Your task to perform on an android device: make emails show in primary in the gmail app Image 0: 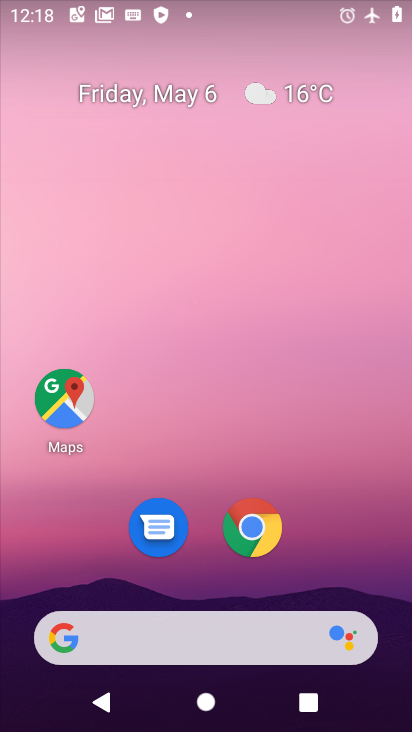
Step 0: drag from (312, 556) to (137, 109)
Your task to perform on an android device: make emails show in primary in the gmail app Image 1: 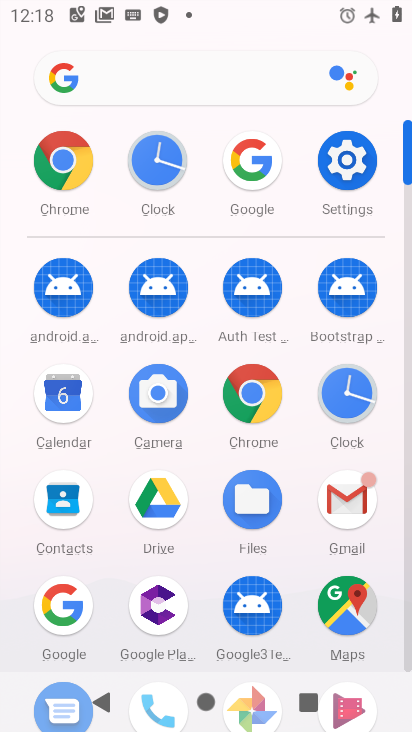
Step 1: click (354, 506)
Your task to perform on an android device: make emails show in primary in the gmail app Image 2: 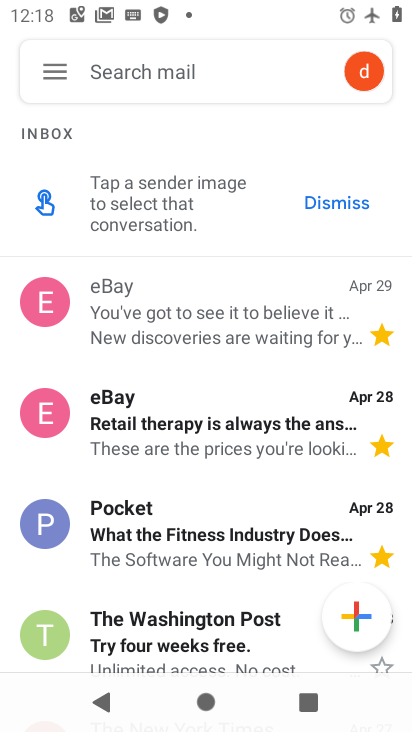
Step 2: click (59, 69)
Your task to perform on an android device: make emails show in primary in the gmail app Image 3: 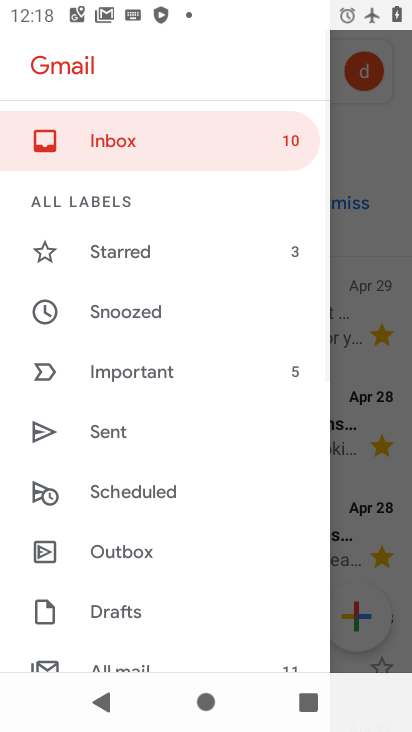
Step 3: drag from (130, 633) to (152, 134)
Your task to perform on an android device: make emails show in primary in the gmail app Image 4: 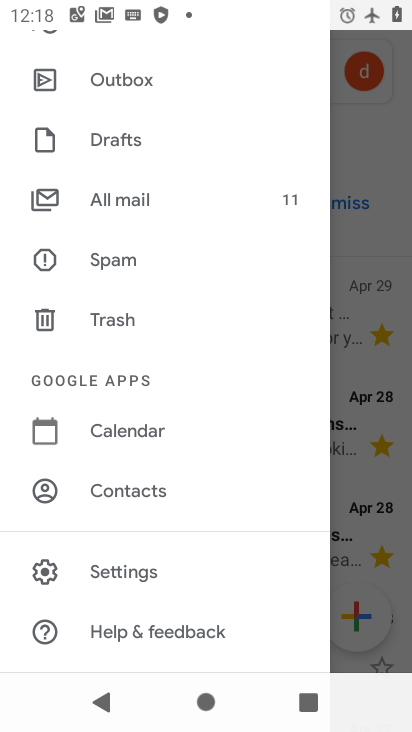
Step 4: click (118, 564)
Your task to perform on an android device: make emails show in primary in the gmail app Image 5: 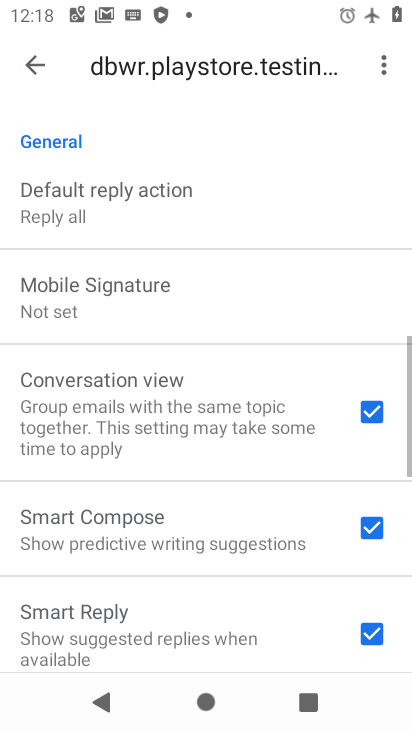
Step 5: drag from (118, 492) to (82, 648)
Your task to perform on an android device: make emails show in primary in the gmail app Image 6: 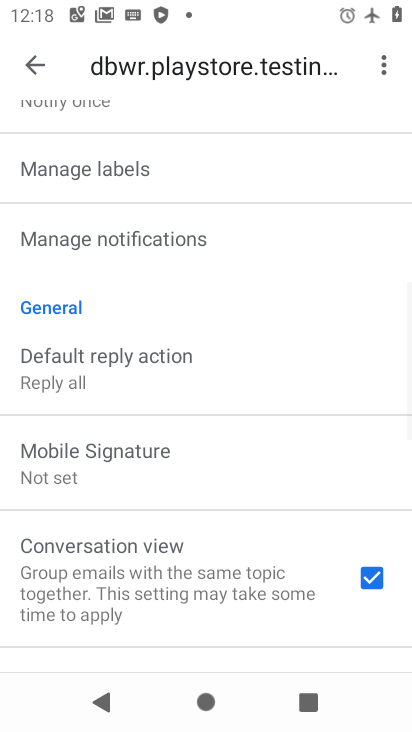
Step 6: drag from (184, 218) to (118, 597)
Your task to perform on an android device: make emails show in primary in the gmail app Image 7: 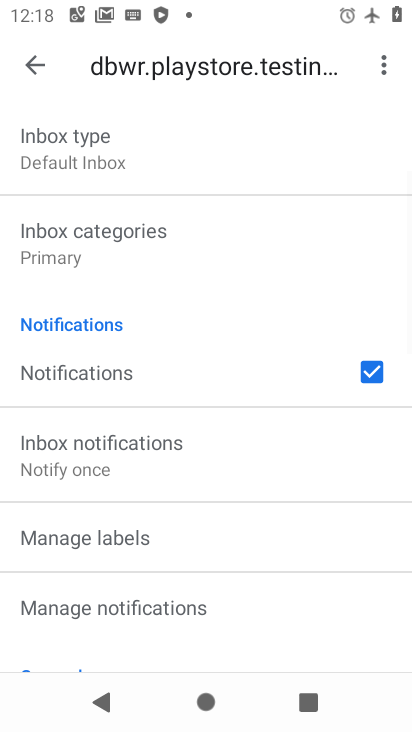
Step 7: drag from (152, 164) to (106, 441)
Your task to perform on an android device: make emails show in primary in the gmail app Image 8: 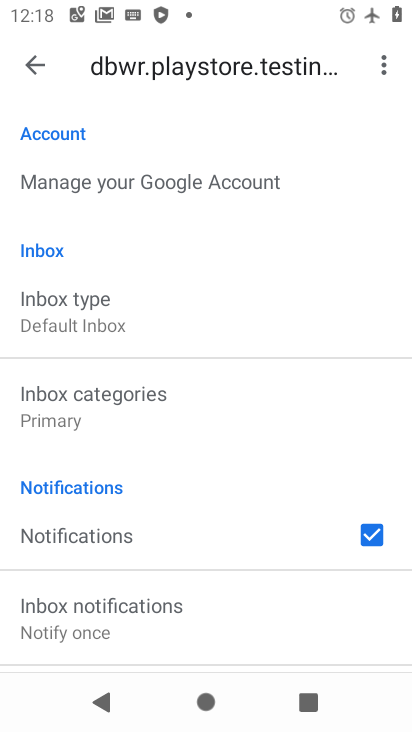
Step 8: click (84, 317)
Your task to perform on an android device: make emails show in primary in the gmail app Image 9: 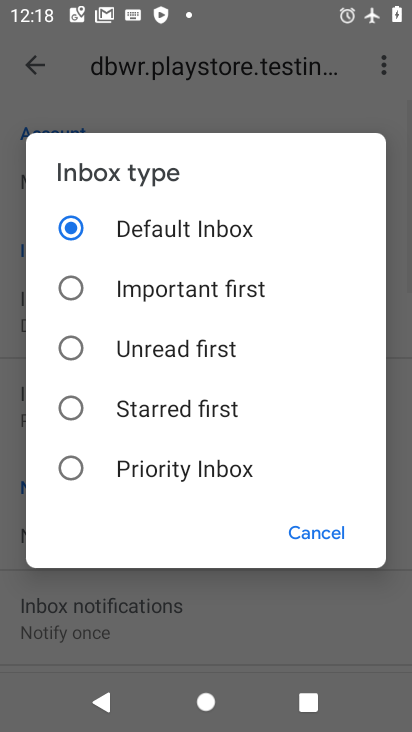
Step 9: click (69, 467)
Your task to perform on an android device: make emails show in primary in the gmail app Image 10: 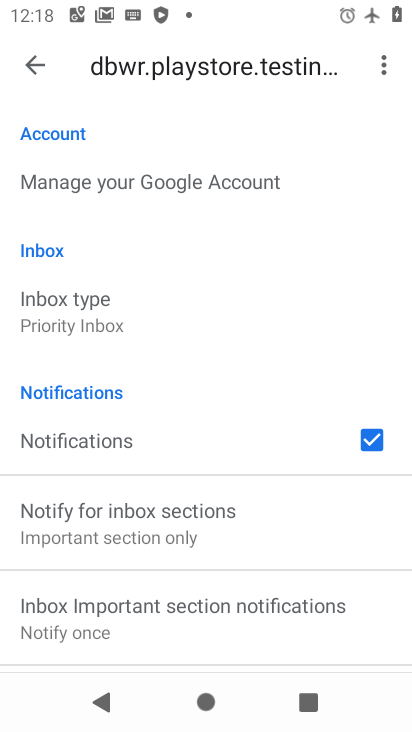
Step 10: drag from (123, 281) to (103, 480)
Your task to perform on an android device: make emails show in primary in the gmail app Image 11: 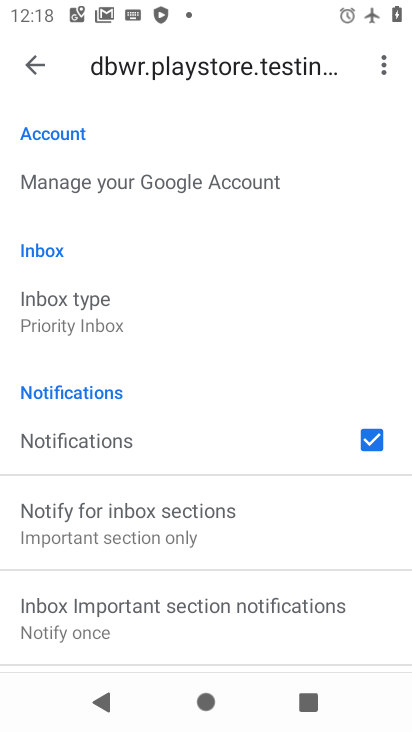
Step 11: press back button
Your task to perform on an android device: make emails show in primary in the gmail app Image 12: 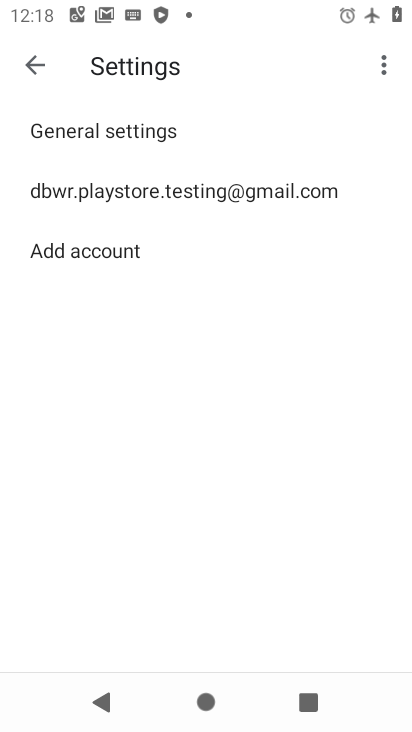
Step 12: press back button
Your task to perform on an android device: make emails show in primary in the gmail app Image 13: 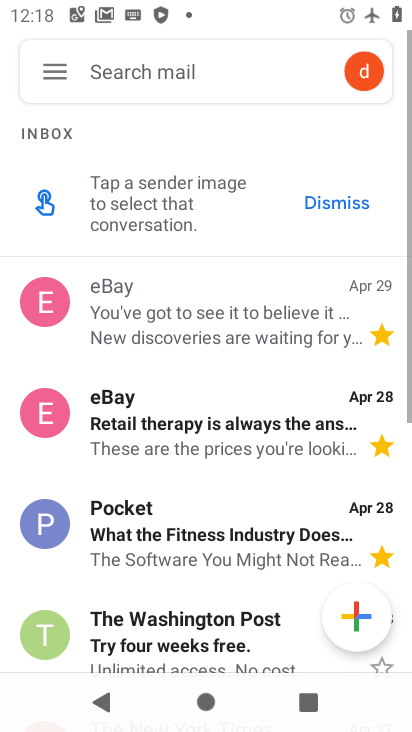
Step 13: click (58, 73)
Your task to perform on an android device: make emails show in primary in the gmail app Image 14: 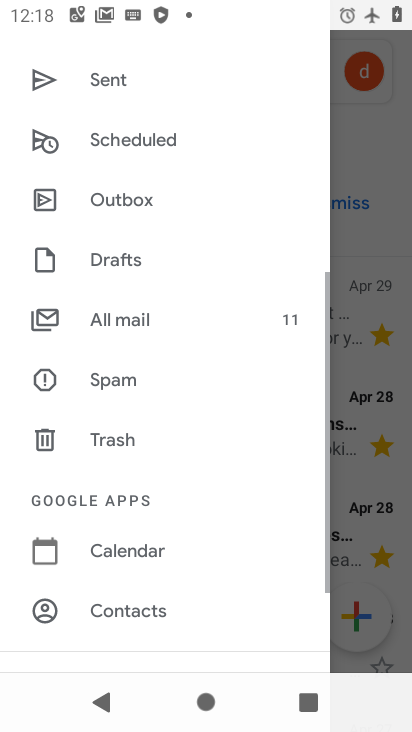
Step 14: drag from (158, 177) to (137, 621)
Your task to perform on an android device: make emails show in primary in the gmail app Image 15: 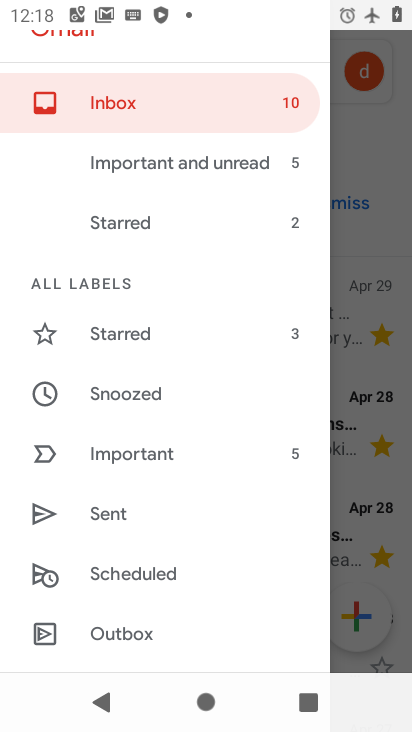
Step 15: drag from (159, 142) to (154, 383)
Your task to perform on an android device: make emails show in primary in the gmail app Image 16: 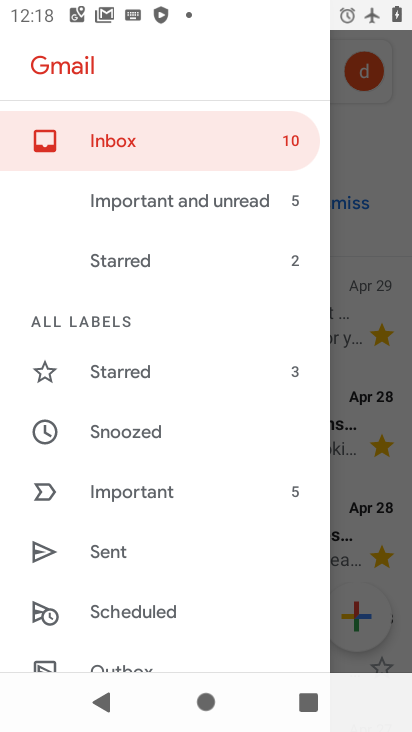
Step 16: drag from (159, 562) to (169, 139)
Your task to perform on an android device: make emails show in primary in the gmail app Image 17: 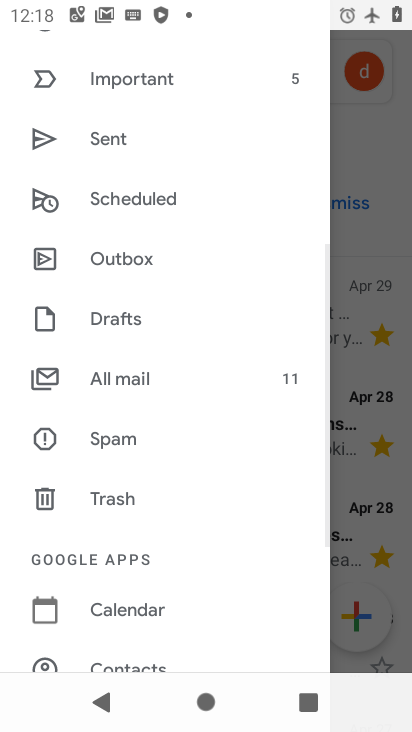
Step 17: drag from (144, 586) to (145, 219)
Your task to perform on an android device: make emails show in primary in the gmail app Image 18: 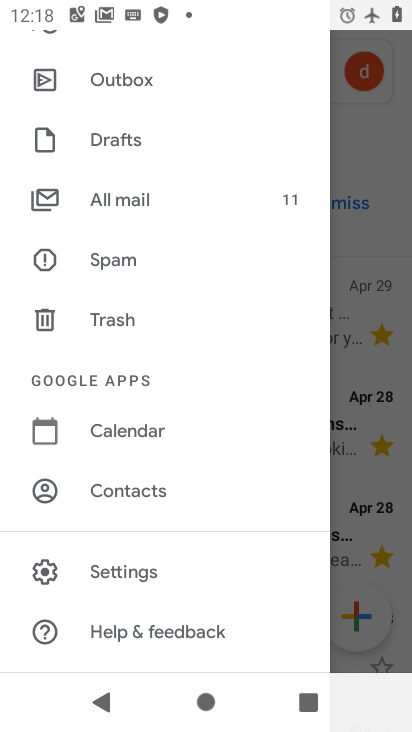
Step 18: click (119, 572)
Your task to perform on an android device: make emails show in primary in the gmail app Image 19: 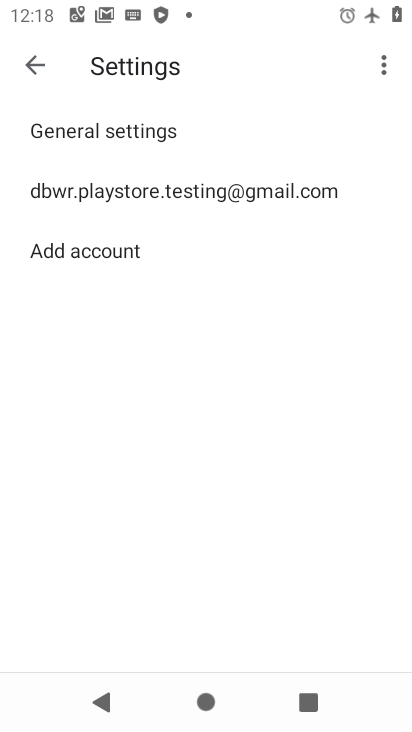
Step 19: click (105, 194)
Your task to perform on an android device: make emails show in primary in the gmail app Image 20: 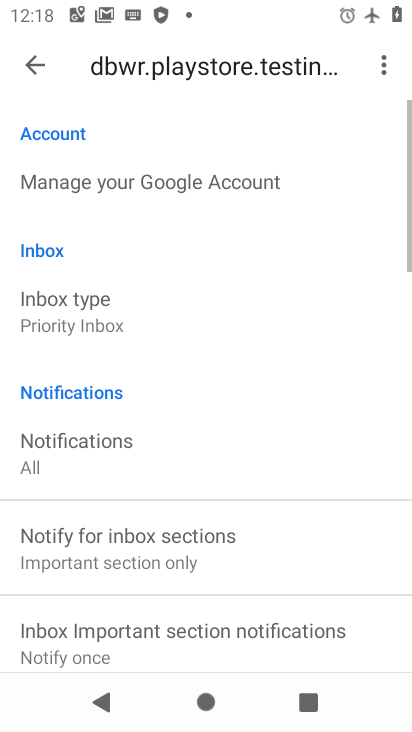
Step 20: click (63, 318)
Your task to perform on an android device: make emails show in primary in the gmail app Image 21: 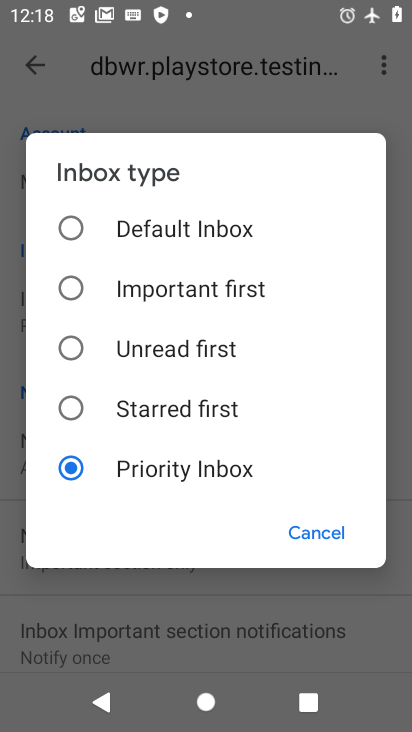
Step 21: click (69, 226)
Your task to perform on an android device: make emails show in primary in the gmail app Image 22: 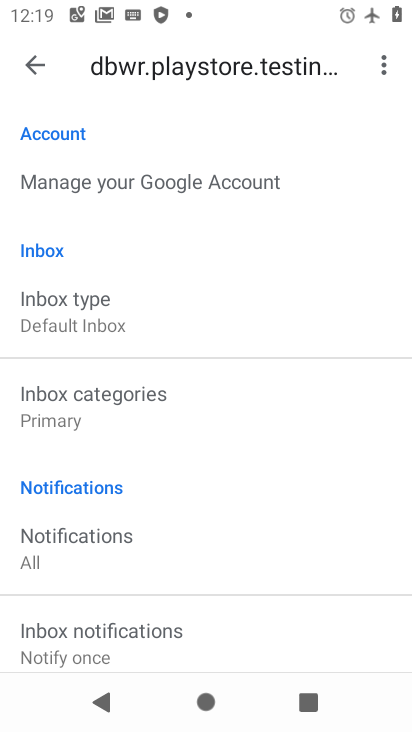
Step 22: press back button
Your task to perform on an android device: make emails show in primary in the gmail app Image 23: 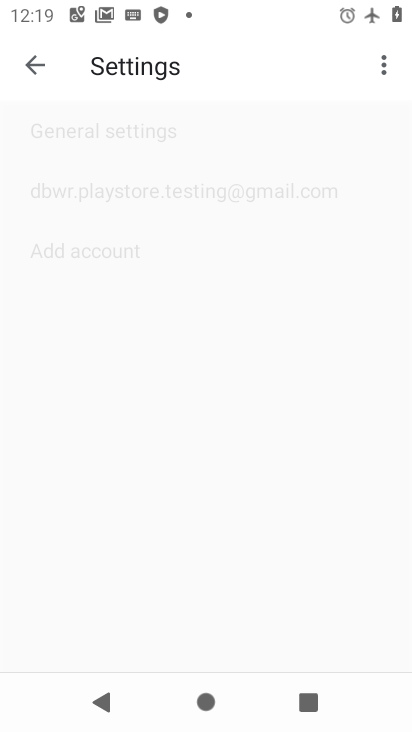
Step 23: press back button
Your task to perform on an android device: make emails show in primary in the gmail app Image 24: 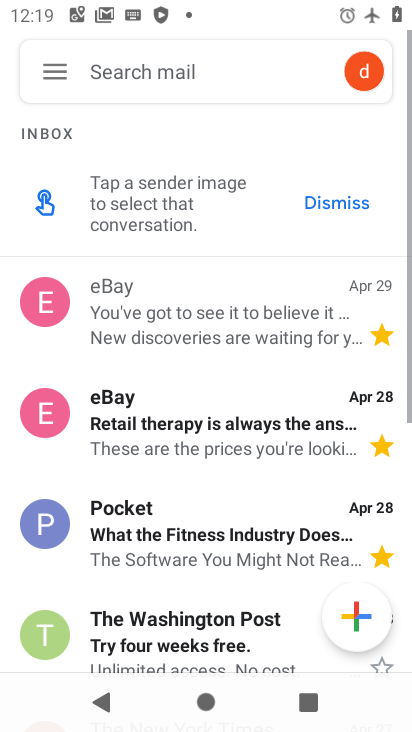
Step 24: click (44, 65)
Your task to perform on an android device: make emails show in primary in the gmail app Image 25: 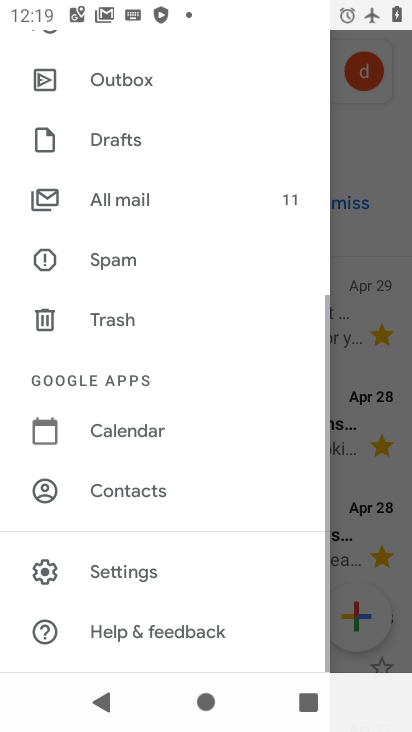
Step 25: task complete